Your task to perform on an android device: turn off picture-in-picture Image 0: 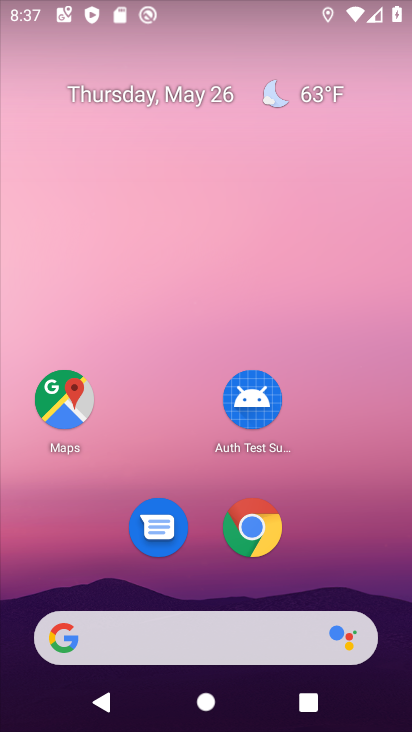
Step 0: click (252, 530)
Your task to perform on an android device: turn off picture-in-picture Image 1: 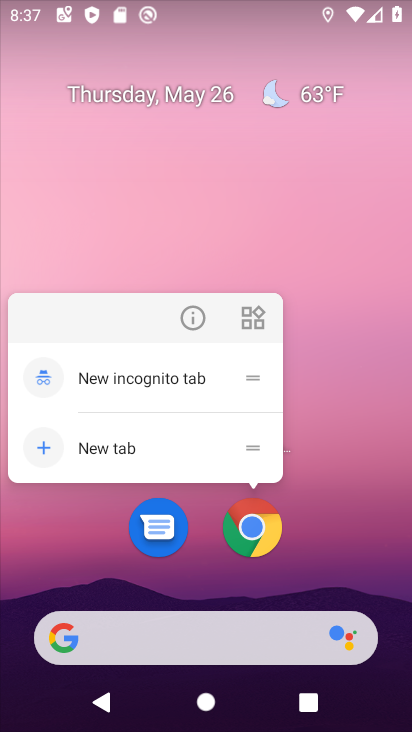
Step 1: click (252, 531)
Your task to perform on an android device: turn off picture-in-picture Image 2: 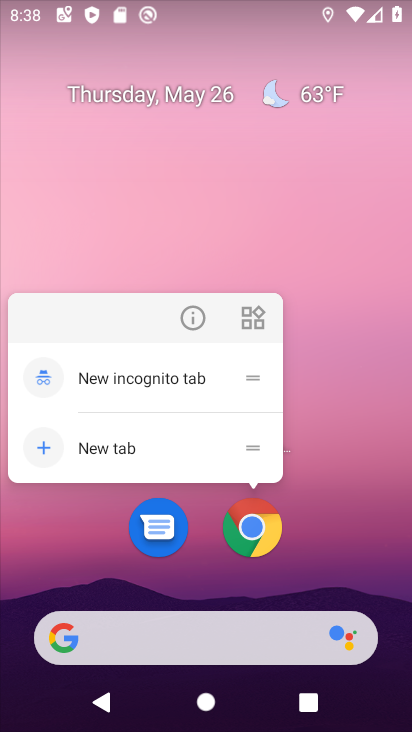
Step 2: click (190, 313)
Your task to perform on an android device: turn off picture-in-picture Image 3: 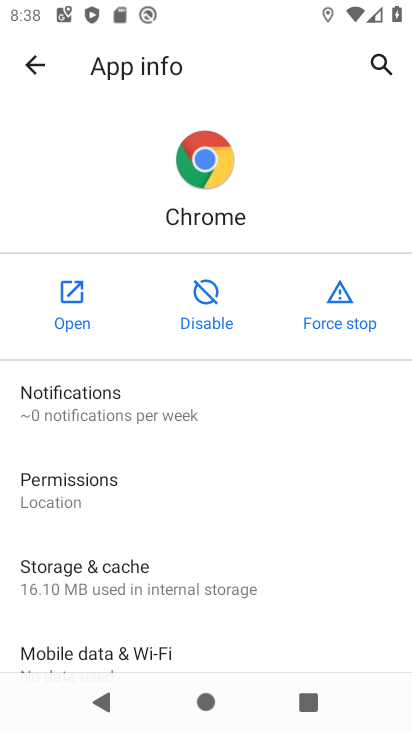
Step 3: drag from (208, 624) to (247, 313)
Your task to perform on an android device: turn off picture-in-picture Image 4: 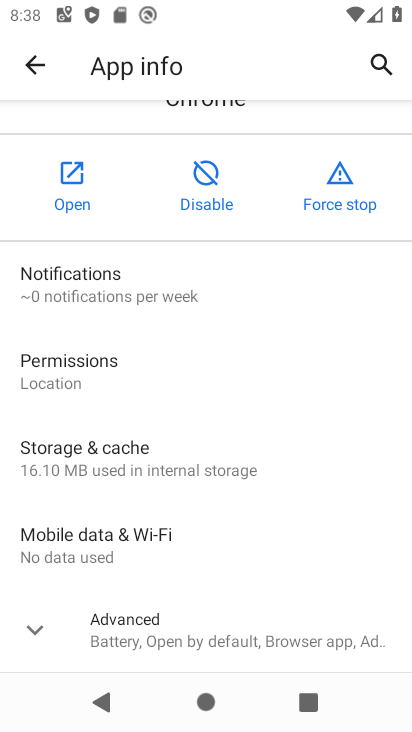
Step 4: drag from (174, 568) to (177, 293)
Your task to perform on an android device: turn off picture-in-picture Image 5: 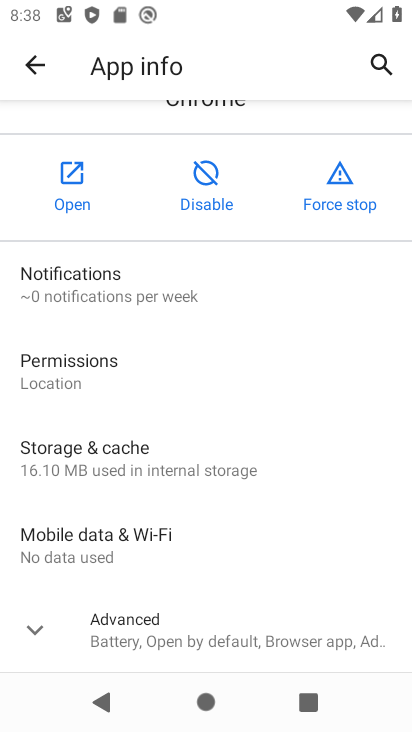
Step 5: click (122, 632)
Your task to perform on an android device: turn off picture-in-picture Image 6: 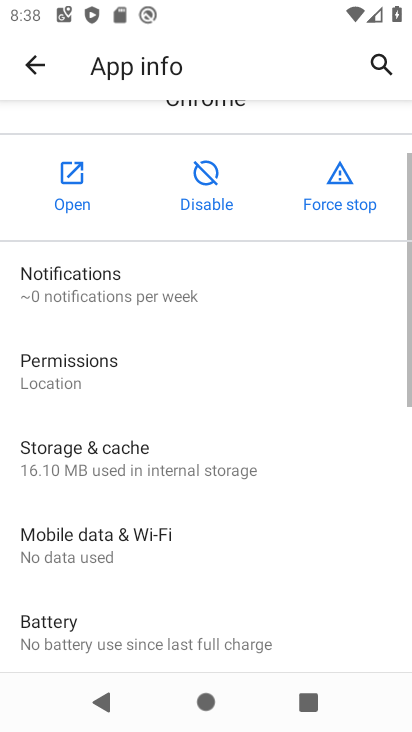
Step 6: drag from (119, 609) to (160, 282)
Your task to perform on an android device: turn off picture-in-picture Image 7: 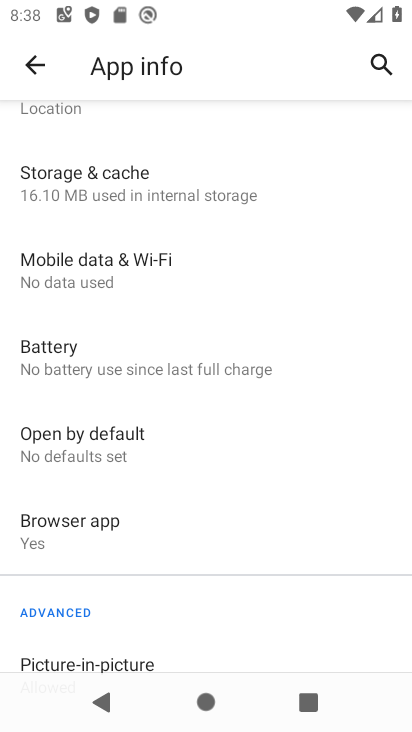
Step 7: drag from (163, 612) to (160, 268)
Your task to perform on an android device: turn off picture-in-picture Image 8: 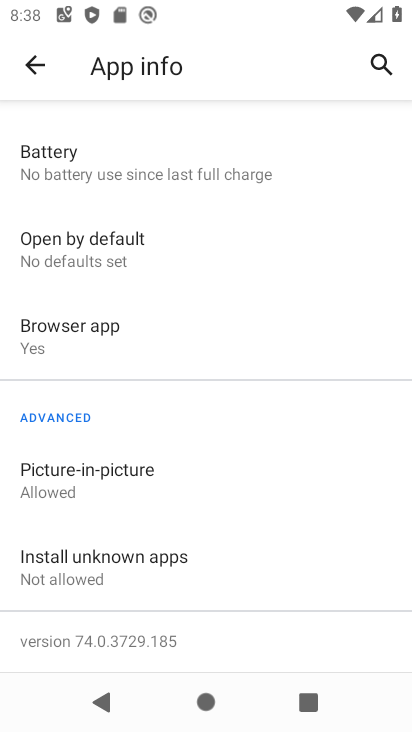
Step 8: click (97, 476)
Your task to perform on an android device: turn off picture-in-picture Image 9: 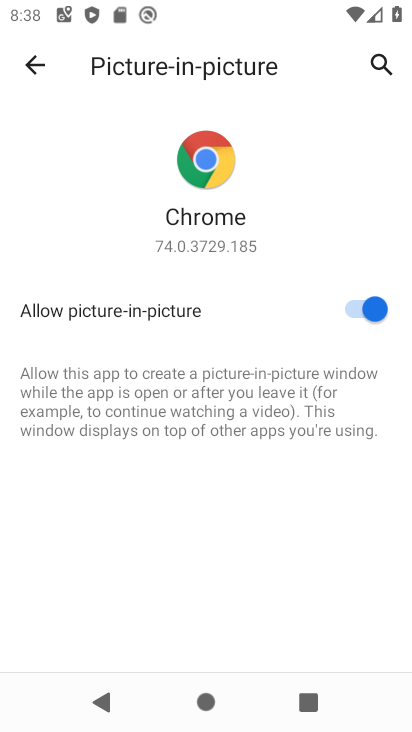
Step 9: click (358, 310)
Your task to perform on an android device: turn off picture-in-picture Image 10: 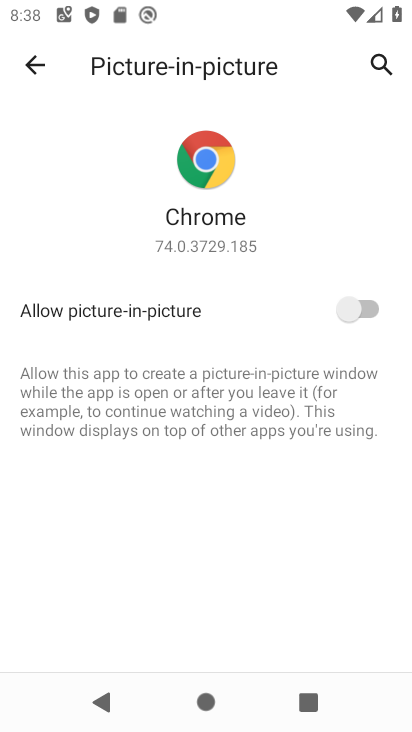
Step 10: task complete